Your task to perform on an android device: Open Google Chrome and open the bookmarks view Image 0: 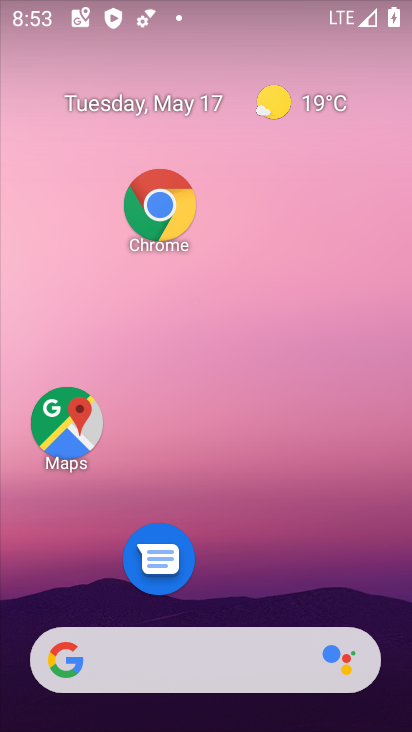
Step 0: drag from (248, 586) to (239, 119)
Your task to perform on an android device: Open Google Chrome and open the bookmarks view Image 1: 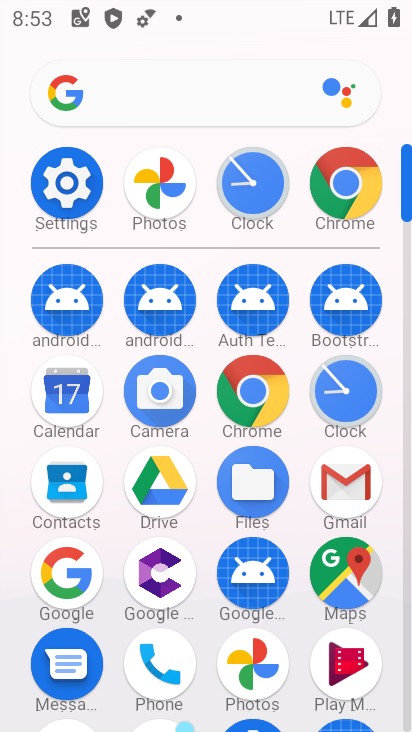
Step 1: click (248, 399)
Your task to perform on an android device: Open Google Chrome and open the bookmarks view Image 2: 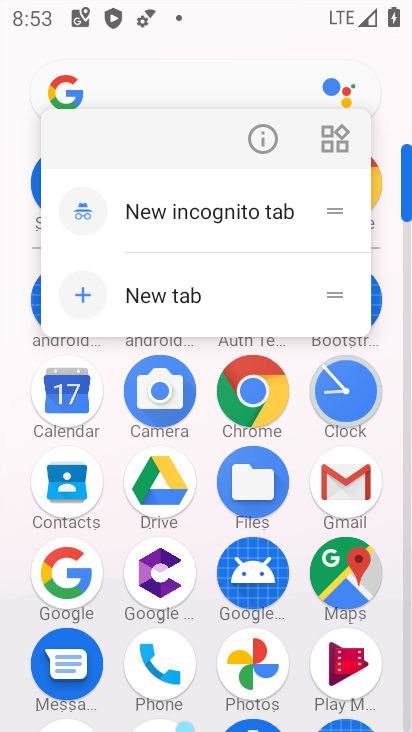
Step 2: click (261, 150)
Your task to perform on an android device: Open Google Chrome and open the bookmarks view Image 3: 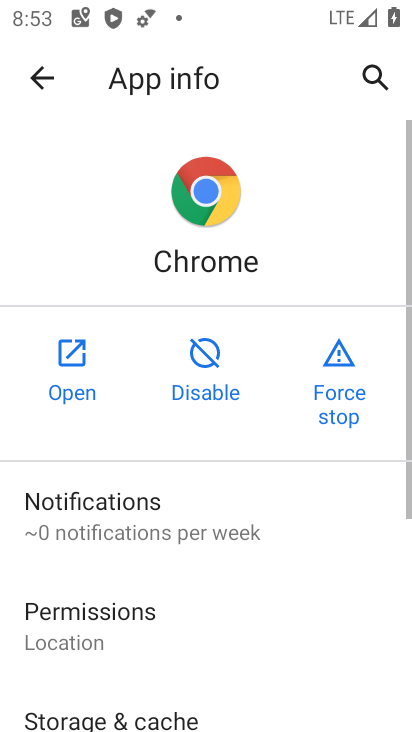
Step 3: click (57, 342)
Your task to perform on an android device: Open Google Chrome and open the bookmarks view Image 4: 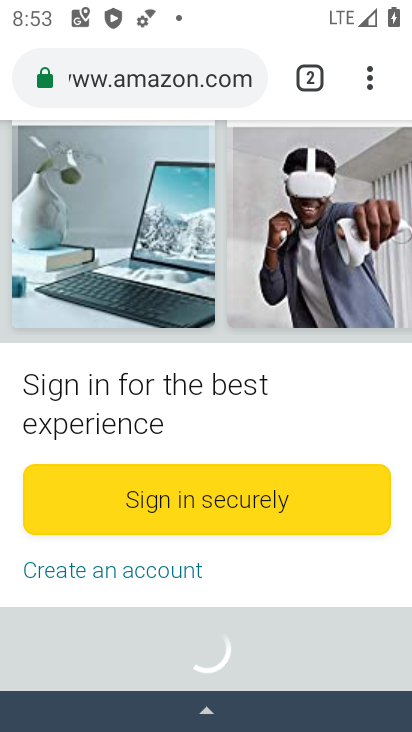
Step 4: drag from (345, 116) to (378, 680)
Your task to perform on an android device: Open Google Chrome and open the bookmarks view Image 5: 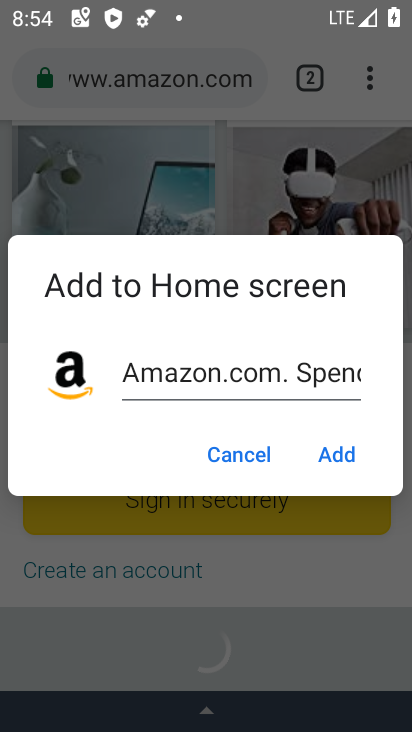
Step 5: click (231, 452)
Your task to perform on an android device: Open Google Chrome and open the bookmarks view Image 6: 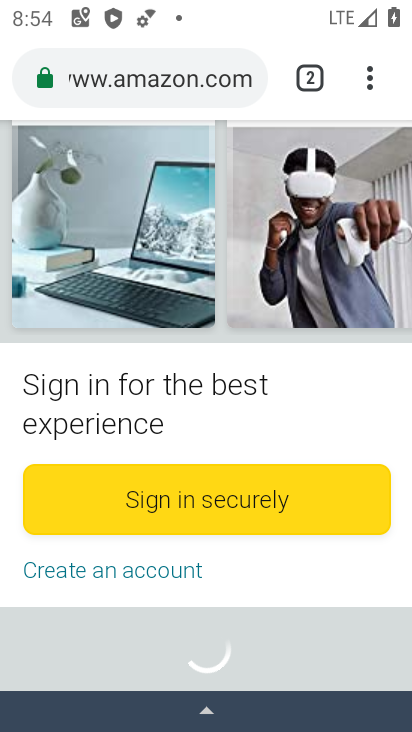
Step 6: click (374, 82)
Your task to perform on an android device: Open Google Chrome and open the bookmarks view Image 7: 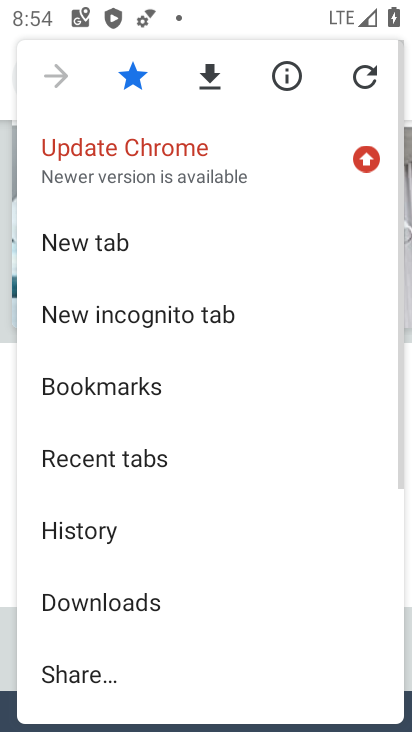
Step 7: drag from (234, 564) to (251, 244)
Your task to perform on an android device: Open Google Chrome and open the bookmarks view Image 8: 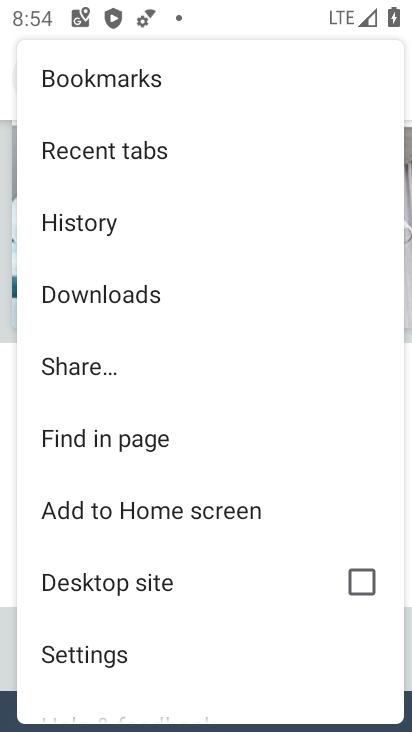
Step 8: drag from (136, 656) to (168, 144)
Your task to perform on an android device: Open Google Chrome and open the bookmarks view Image 9: 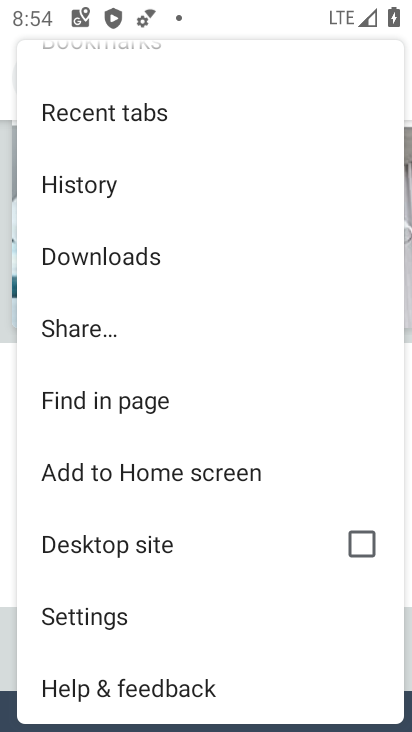
Step 9: drag from (154, 140) to (321, 595)
Your task to perform on an android device: Open Google Chrome and open the bookmarks view Image 10: 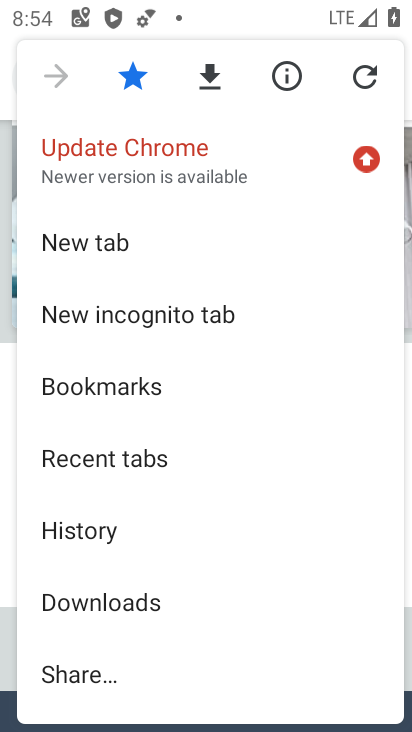
Step 10: click (120, 394)
Your task to perform on an android device: Open Google Chrome and open the bookmarks view Image 11: 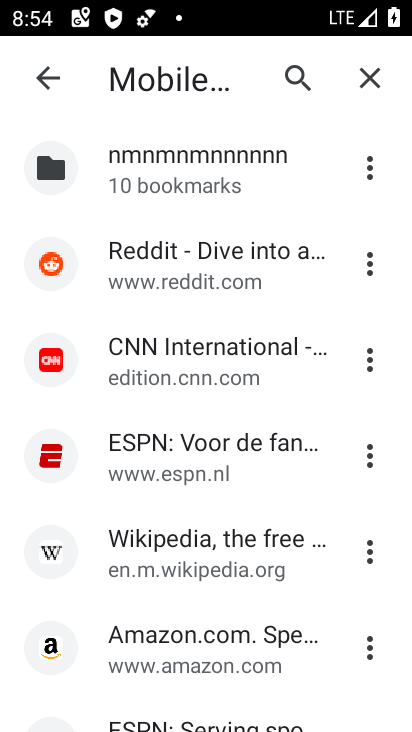
Step 11: task complete